Your task to perform on an android device: check the backup settings in the google photos Image 0: 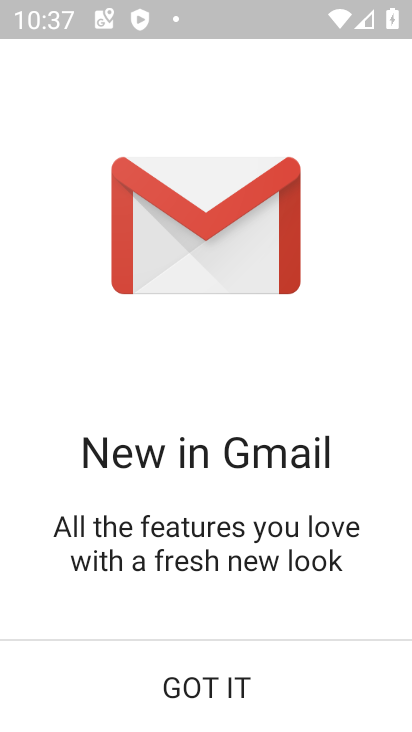
Step 0: press home button
Your task to perform on an android device: check the backup settings in the google photos Image 1: 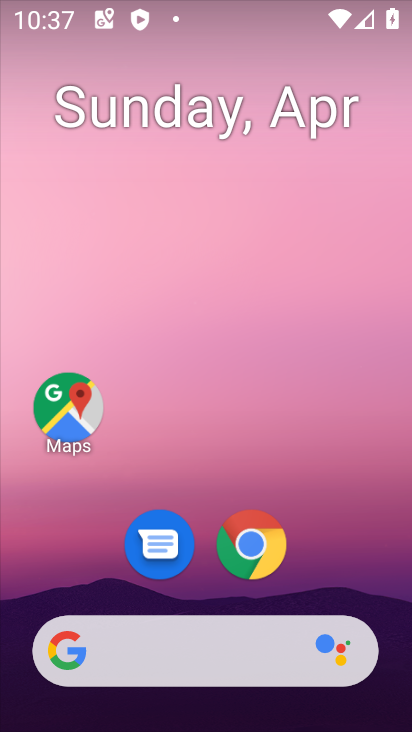
Step 1: drag from (195, 582) to (215, 170)
Your task to perform on an android device: check the backup settings in the google photos Image 2: 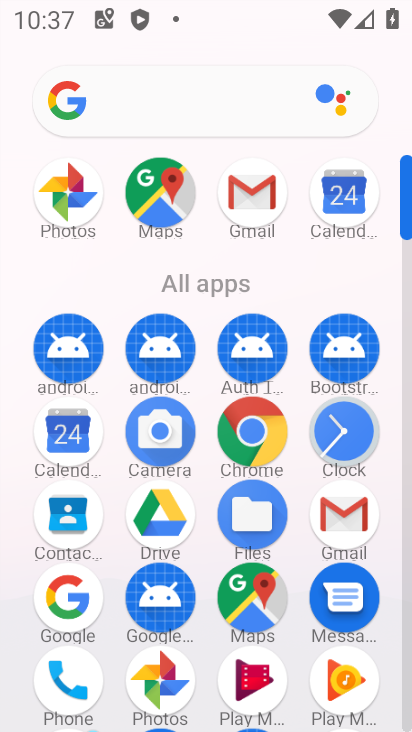
Step 2: click (81, 204)
Your task to perform on an android device: check the backup settings in the google photos Image 3: 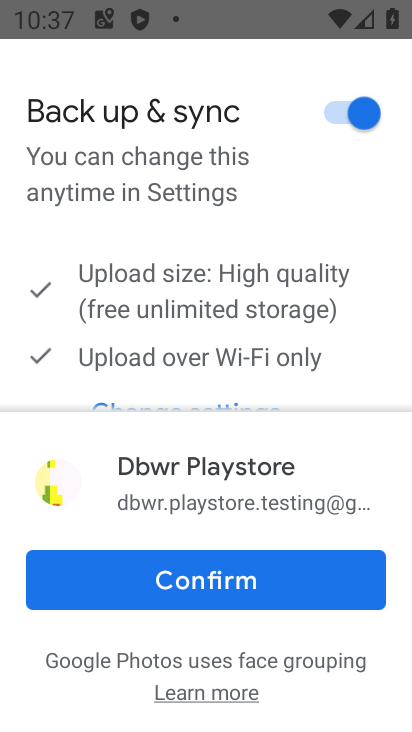
Step 3: click (228, 577)
Your task to perform on an android device: check the backup settings in the google photos Image 4: 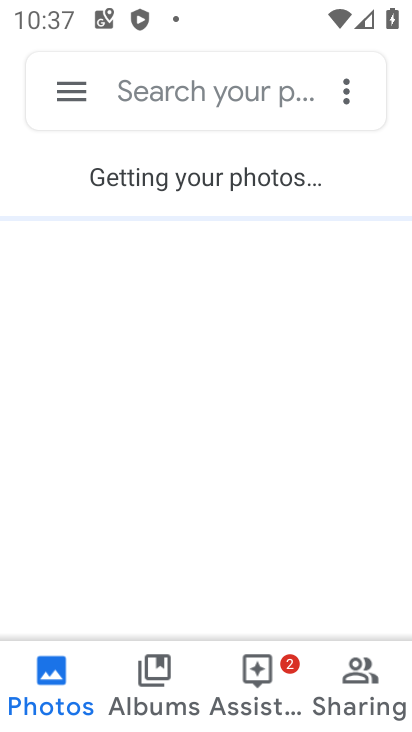
Step 4: click (64, 84)
Your task to perform on an android device: check the backup settings in the google photos Image 5: 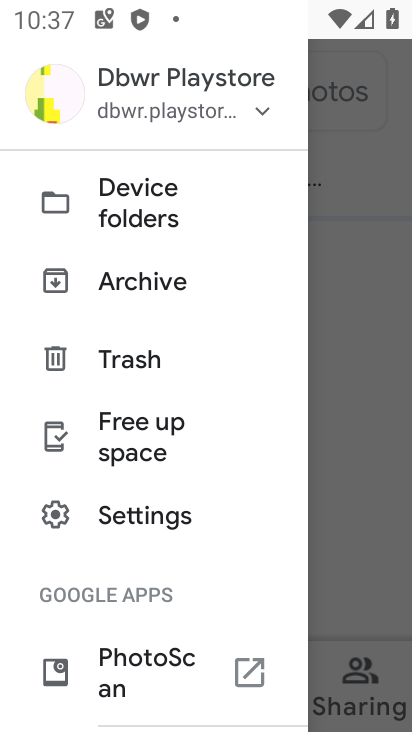
Step 5: click (132, 512)
Your task to perform on an android device: check the backup settings in the google photos Image 6: 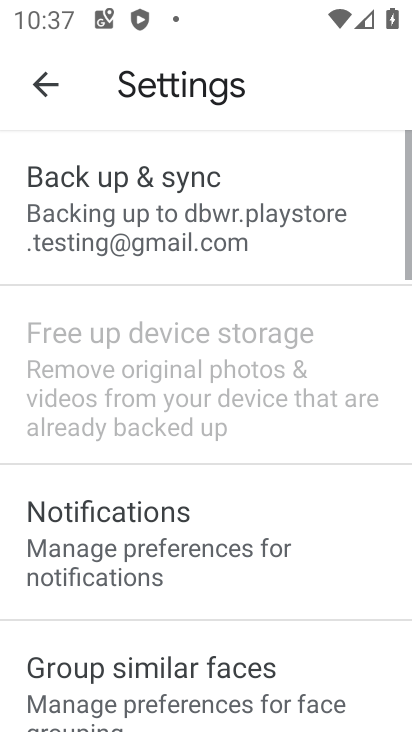
Step 6: click (93, 229)
Your task to perform on an android device: check the backup settings in the google photos Image 7: 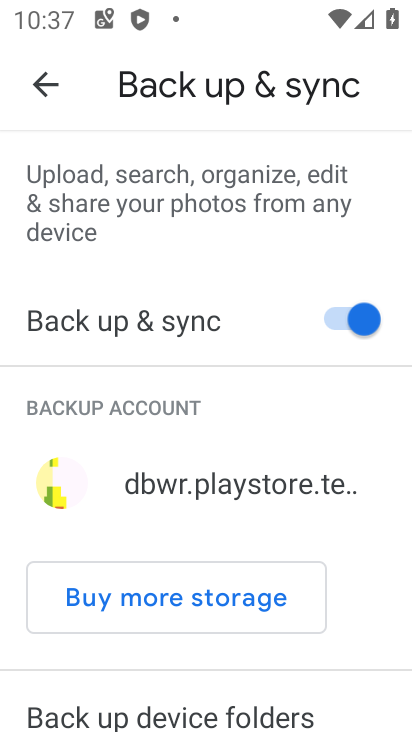
Step 7: task complete